Your task to perform on an android device: open app "Speedtest by Ookla" (install if not already installed) Image 0: 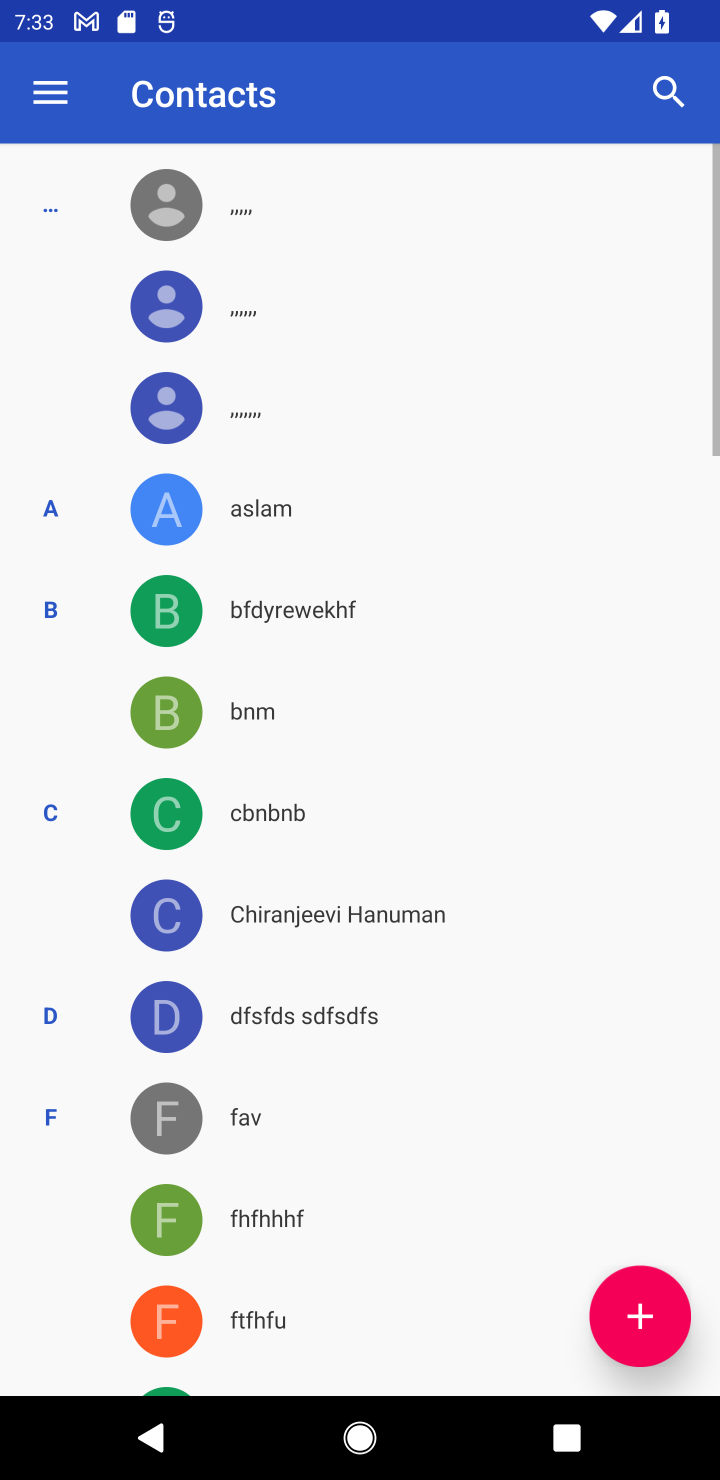
Step 0: press home button
Your task to perform on an android device: open app "Speedtest by Ookla" (install if not already installed) Image 1: 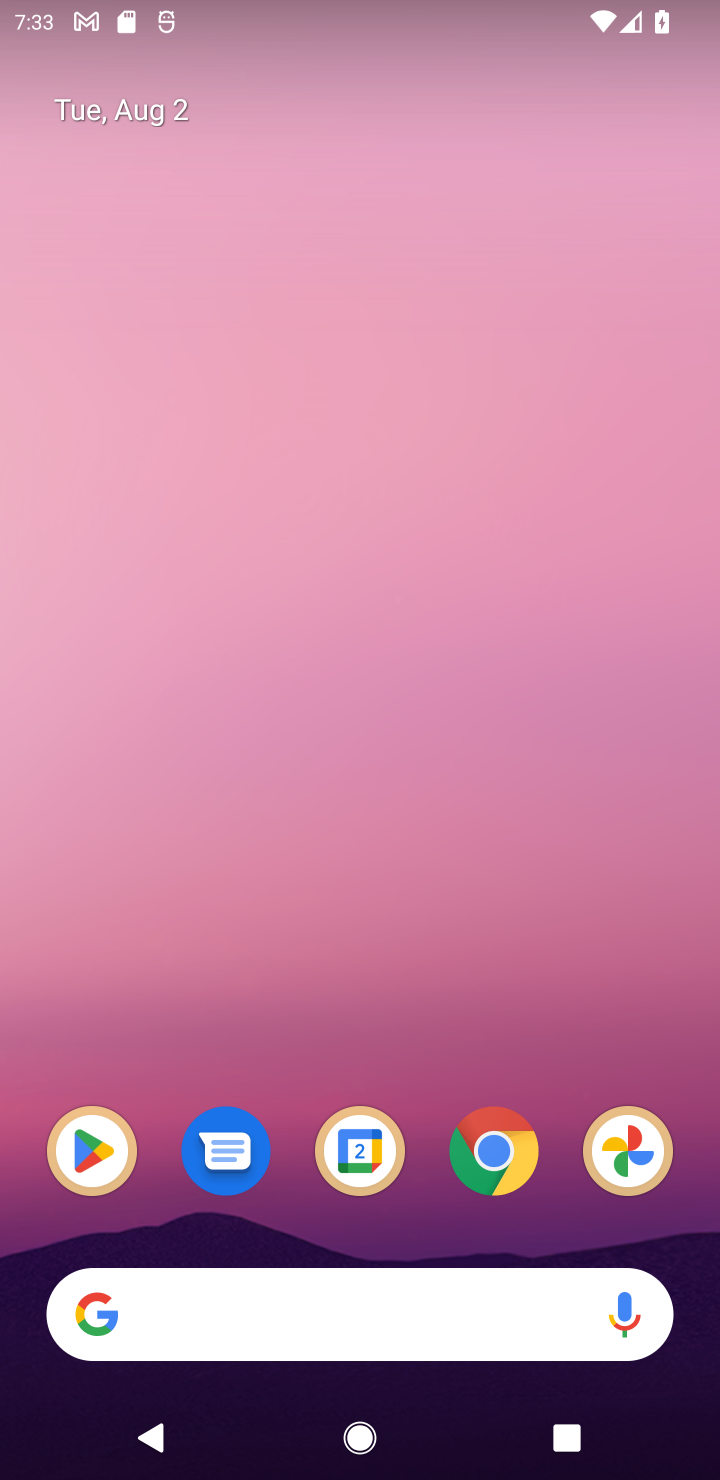
Step 1: drag from (340, 1227) to (300, 125)
Your task to perform on an android device: open app "Speedtest by Ookla" (install if not already installed) Image 2: 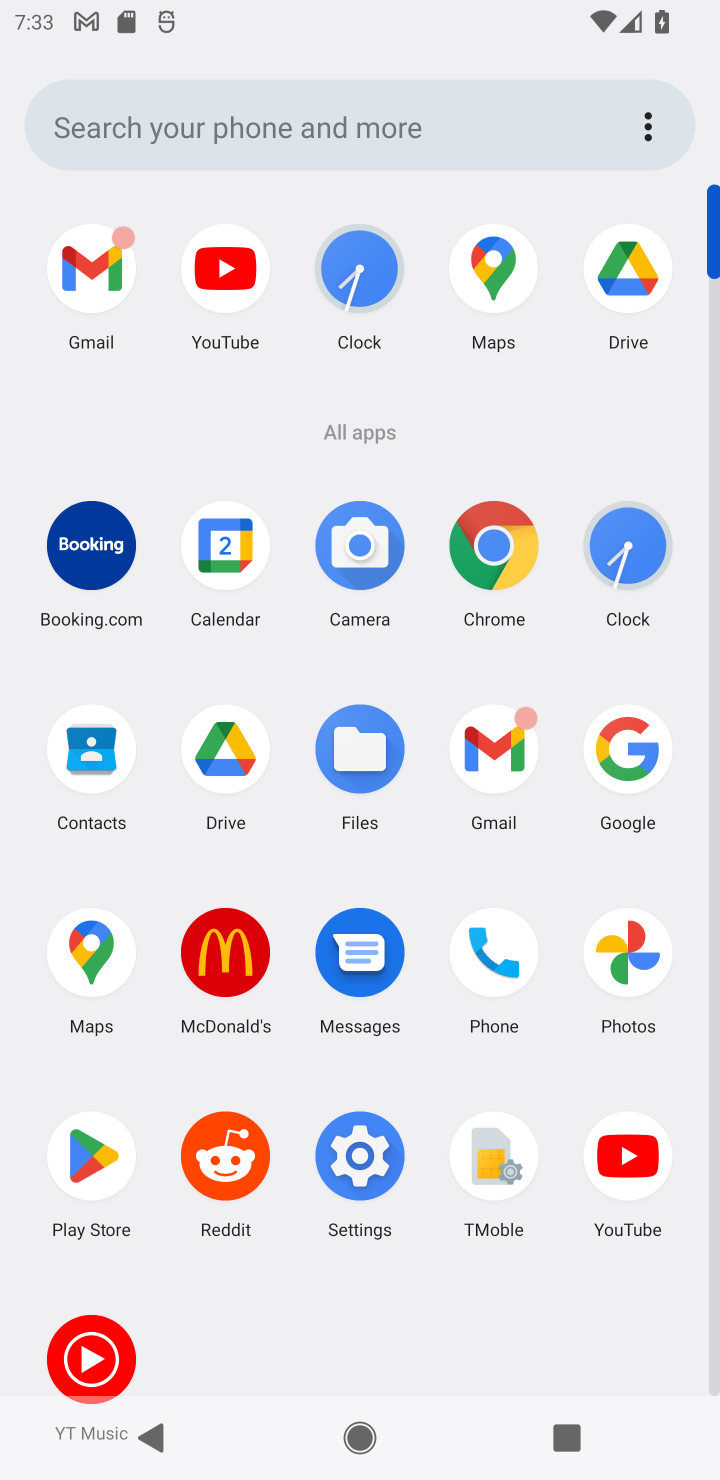
Step 2: click (95, 1172)
Your task to perform on an android device: open app "Speedtest by Ookla" (install if not already installed) Image 3: 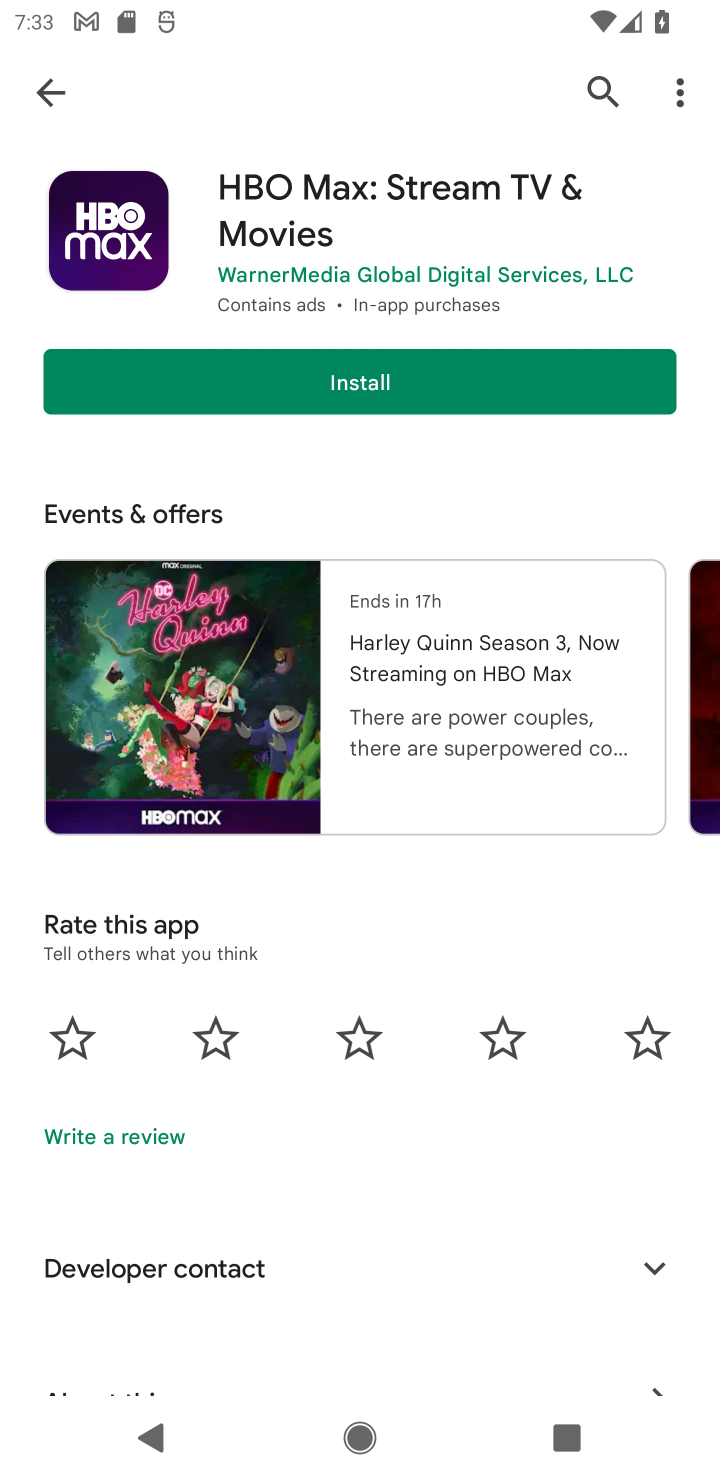
Step 3: click (35, 89)
Your task to perform on an android device: open app "Speedtest by Ookla" (install if not already installed) Image 4: 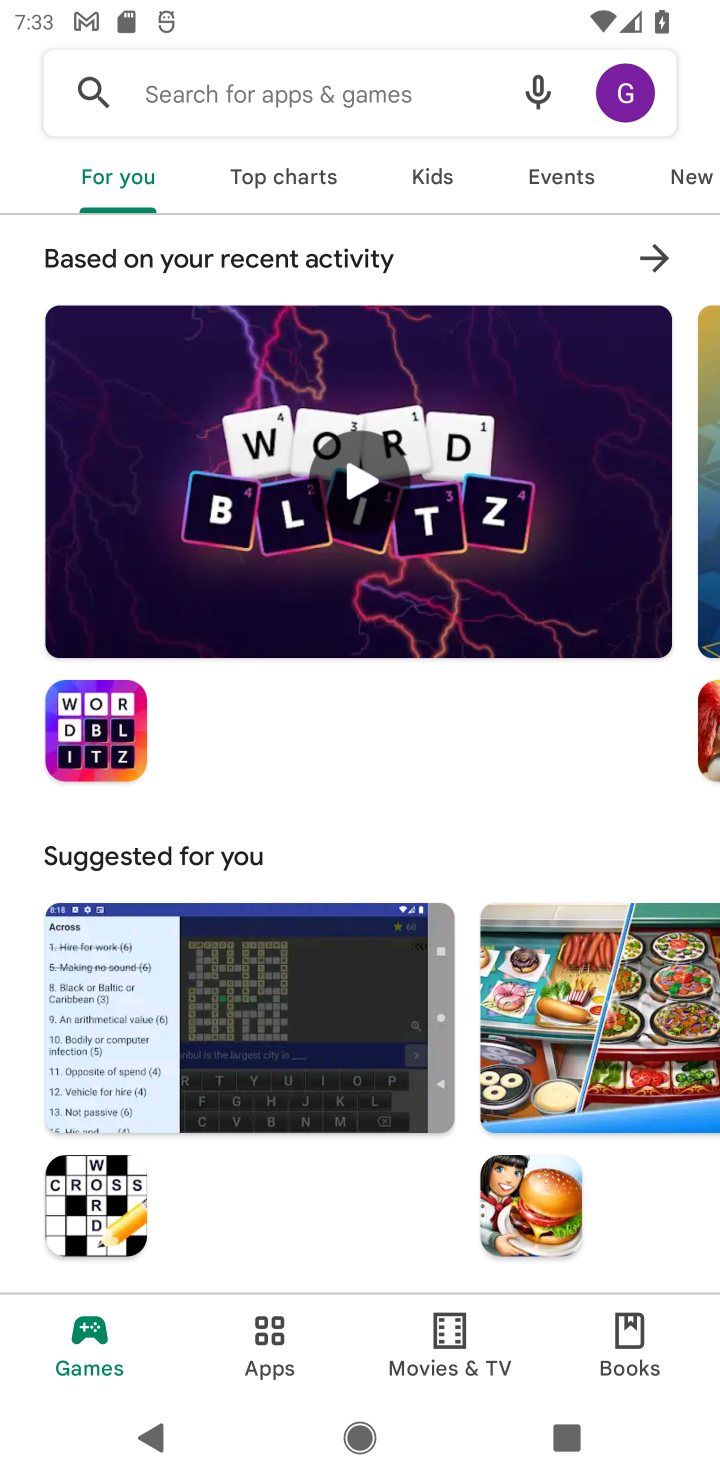
Step 4: click (243, 97)
Your task to perform on an android device: open app "Speedtest by Ookla" (install if not already installed) Image 5: 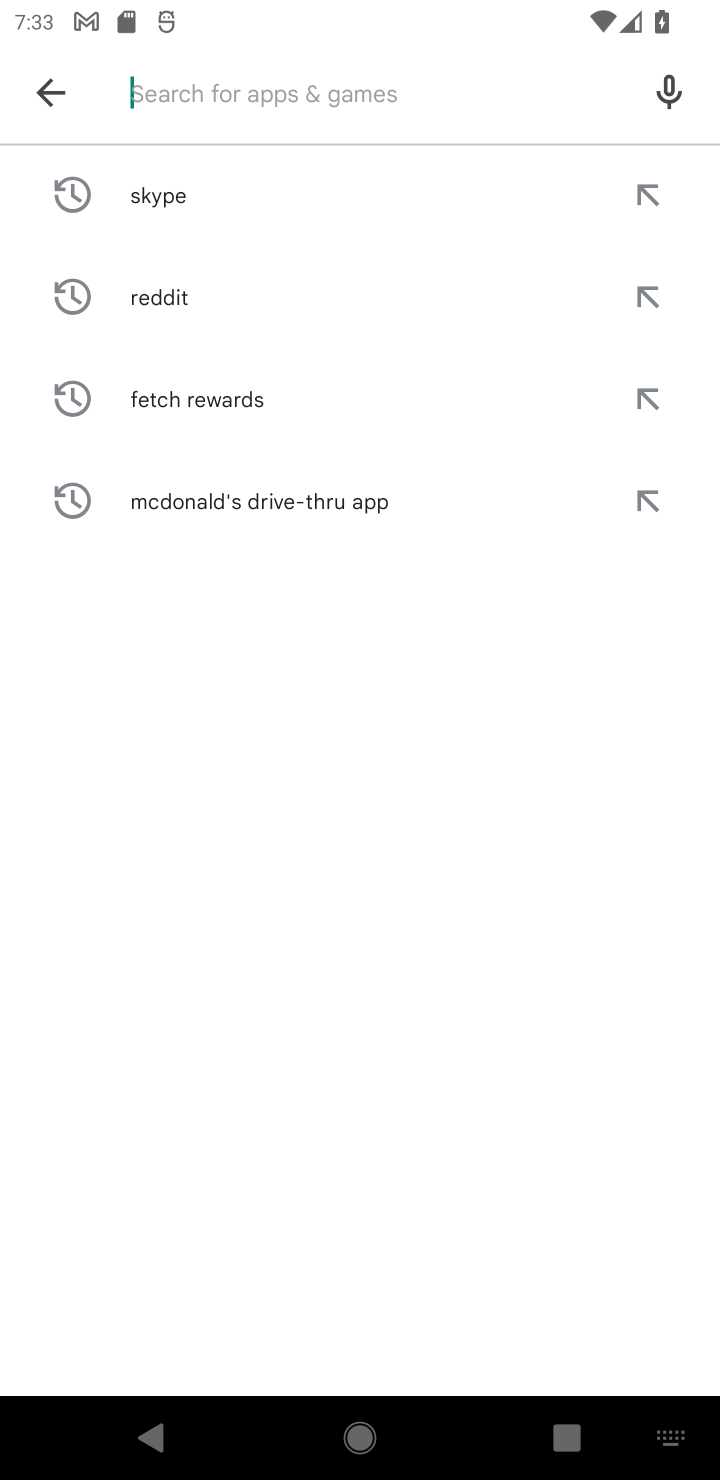
Step 5: type "Speedtest by Ookla"
Your task to perform on an android device: open app "Speedtest by Ookla" (install if not already installed) Image 6: 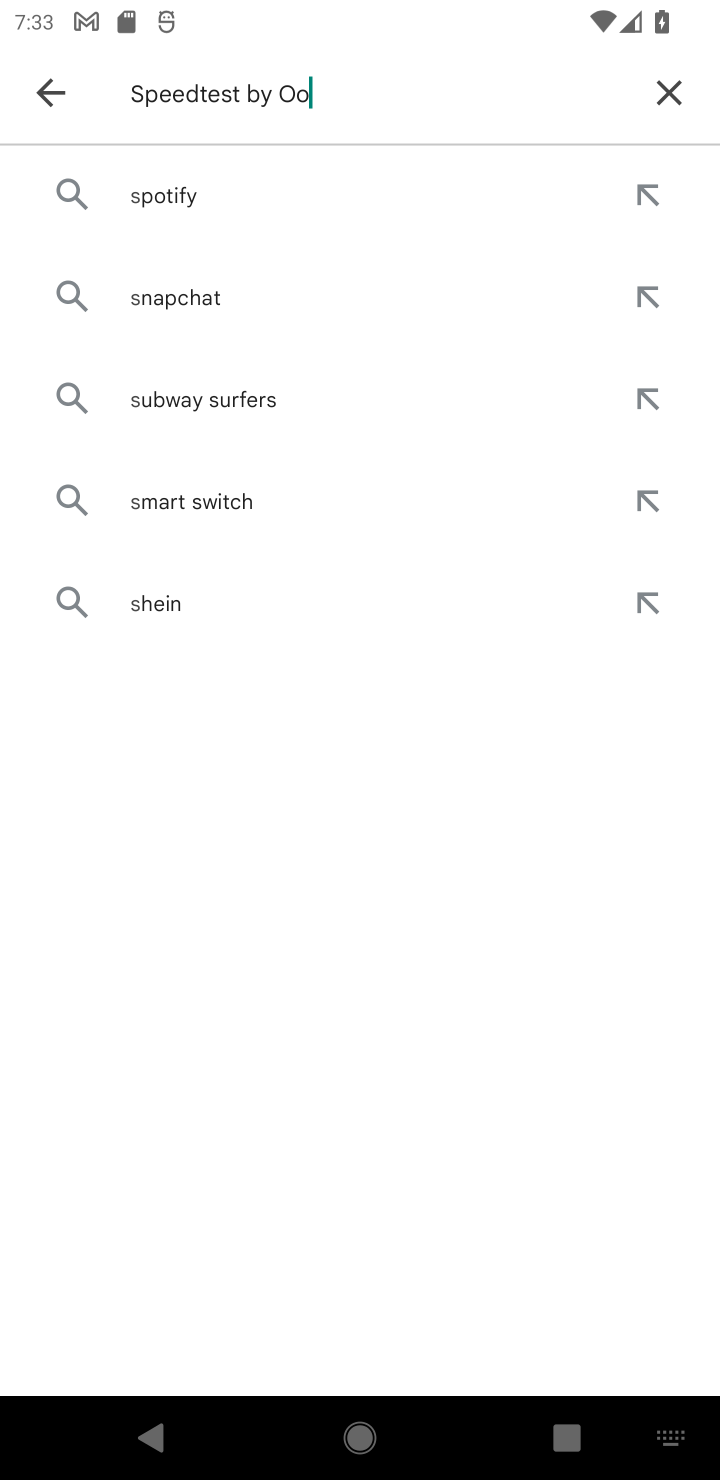
Step 6: type ""
Your task to perform on an android device: open app "Speedtest by Ookla" (install if not already installed) Image 7: 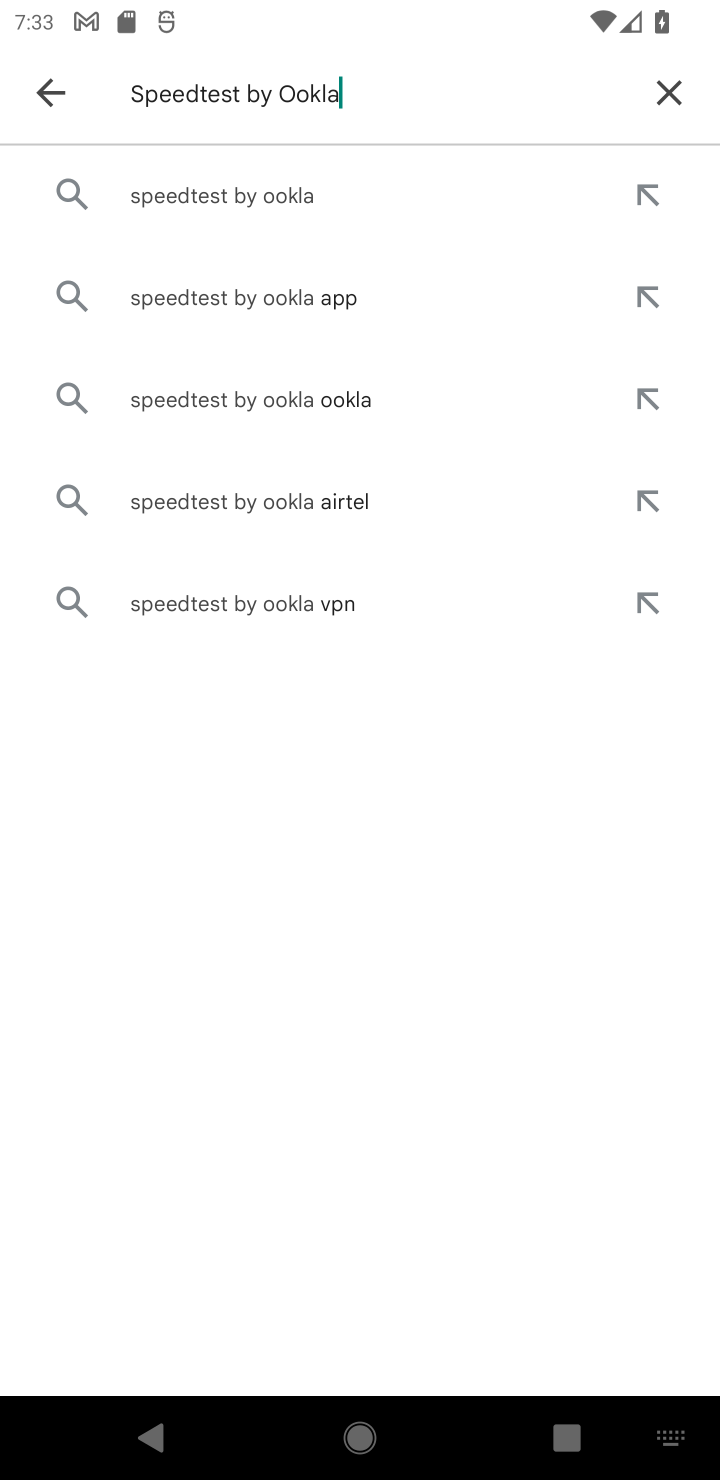
Step 7: click (248, 219)
Your task to perform on an android device: open app "Speedtest by Ookla" (install if not already installed) Image 8: 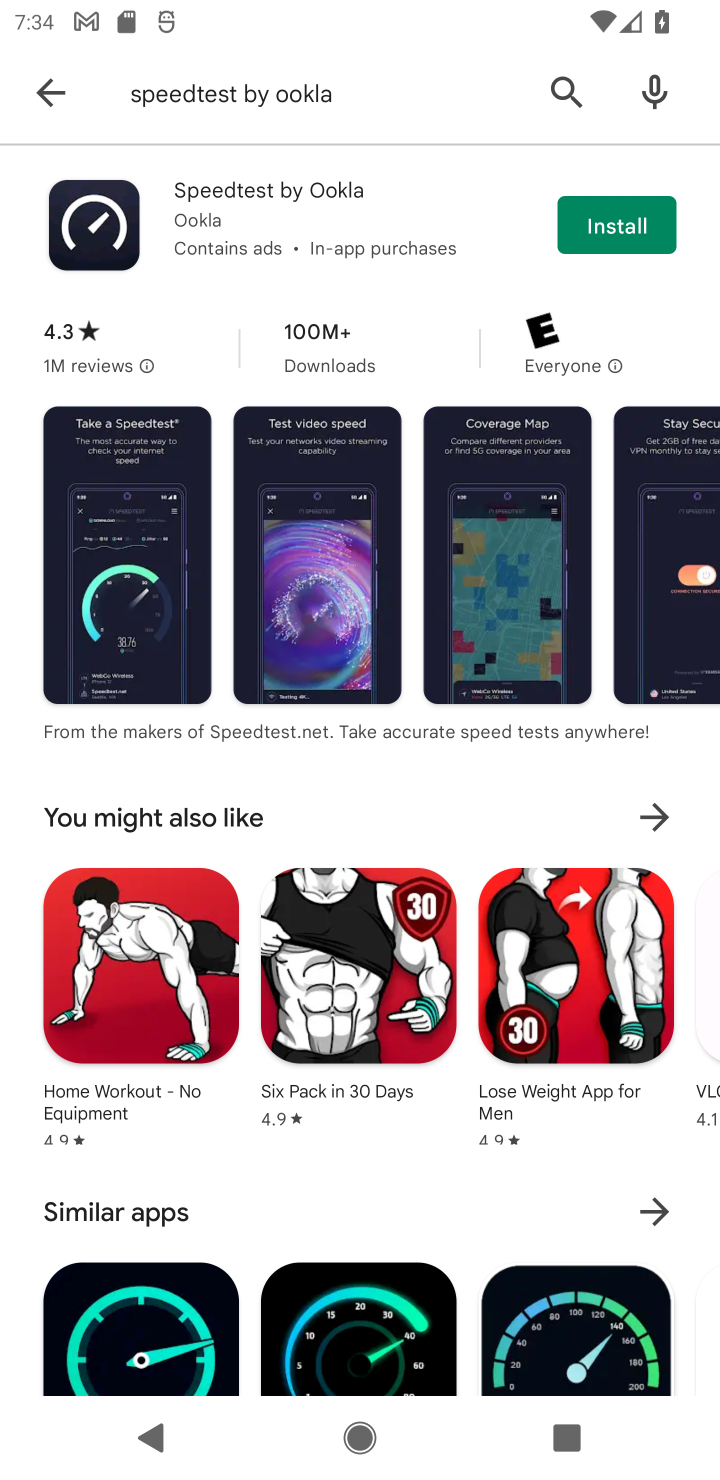
Step 8: click (228, 200)
Your task to perform on an android device: open app "Speedtest by Ookla" (install if not already installed) Image 9: 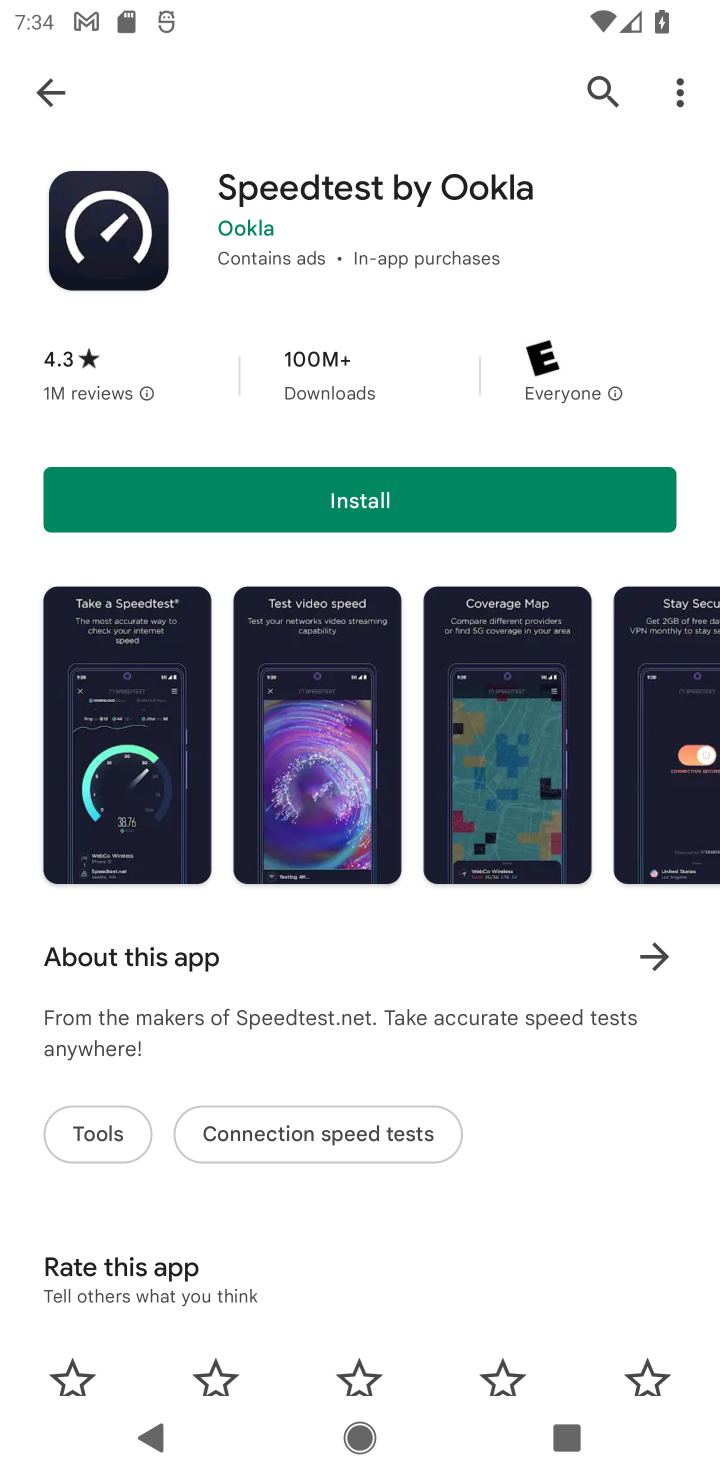
Step 9: task complete